Your task to perform on an android device: stop showing notifications on the lock screen Image 0: 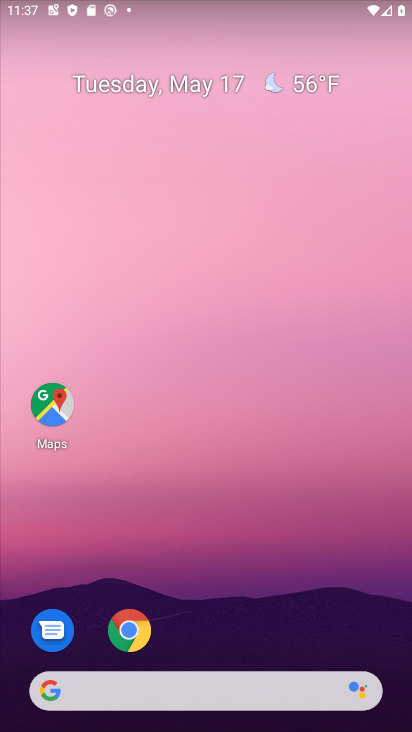
Step 0: drag from (297, 492) to (325, 158)
Your task to perform on an android device: stop showing notifications on the lock screen Image 1: 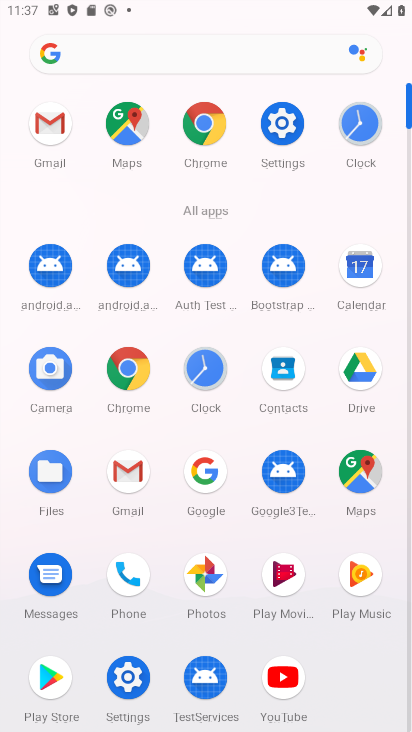
Step 1: click (124, 673)
Your task to perform on an android device: stop showing notifications on the lock screen Image 2: 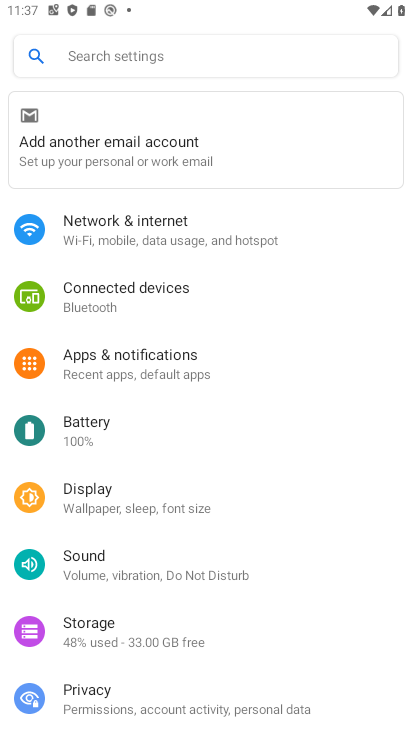
Step 2: click (181, 353)
Your task to perform on an android device: stop showing notifications on the lock screen Image 3: 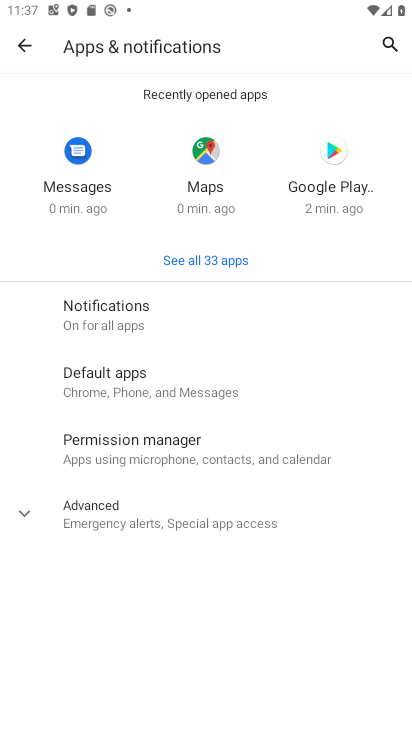
Step 3: click (168, 327)
Your task to perform on an android device: stop showing notifications on the lock screen Image 4: 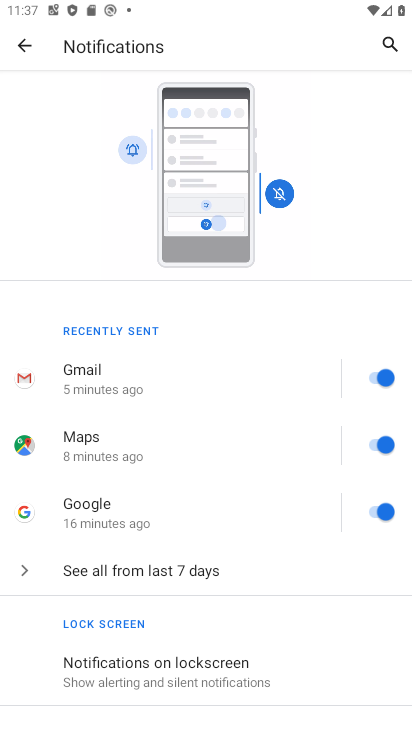
Step 4: click (247, 673)
Your task to perform on an android device: stop showing notifications on the lock screen Image 5: 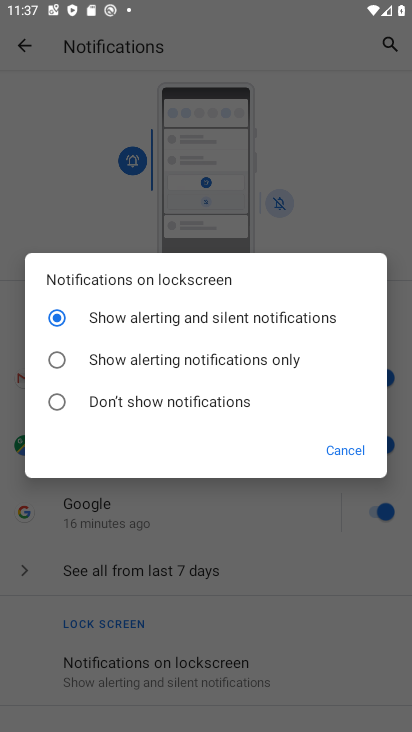
Step 5: click (126, 408)
Your task to perform on an android device: stop showing notifications on the lock screen Image 6: 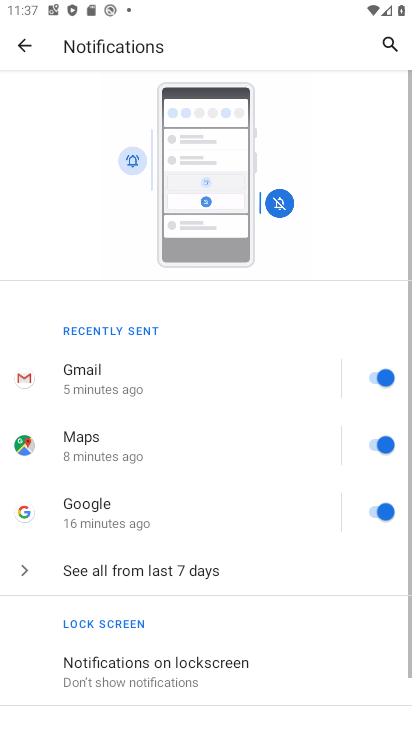
Step 6: task complete